Your task to perform on an android device: Open maps Image 0: 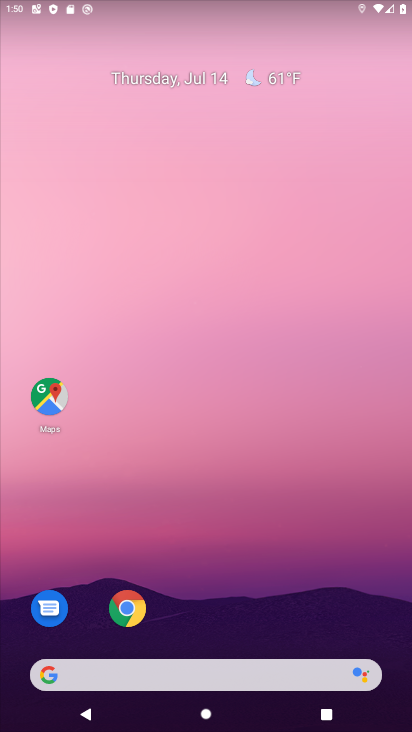
Step 0: click (49, 397)
Your task to perform on an android device: Open maps Image 1: 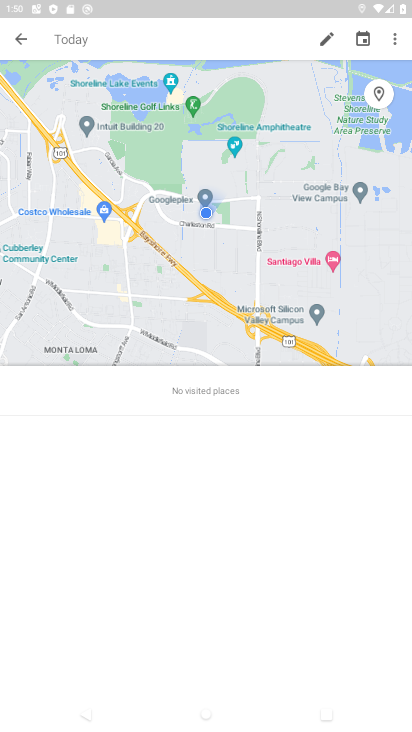
Step 1: task complete